Your task to perform on an android device: Is it going to rain tomorrow? Image 0: 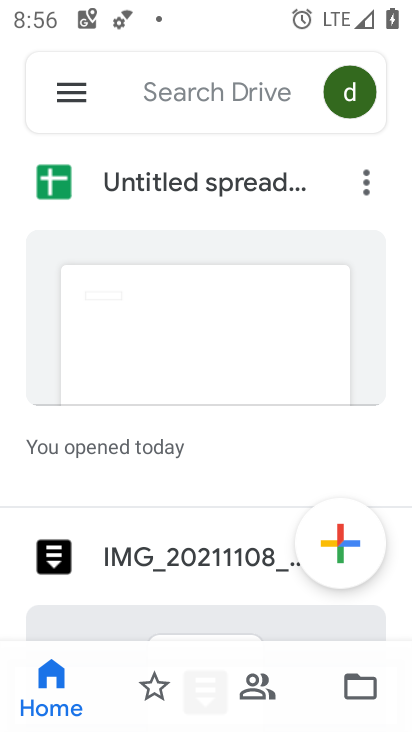
Step 0: press home button
Your task to perform on an android device: Is it going to rain tomorrow? Image 1: 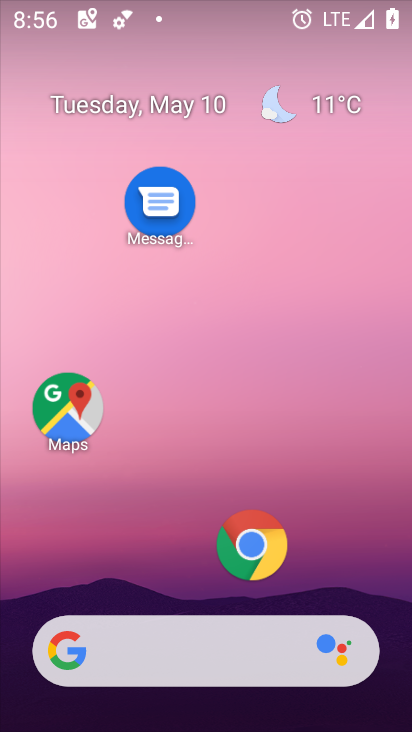
Step 1: click (339, 110)
Your task to perform on an android device: Is it going to rain tomorrow? Image 2: 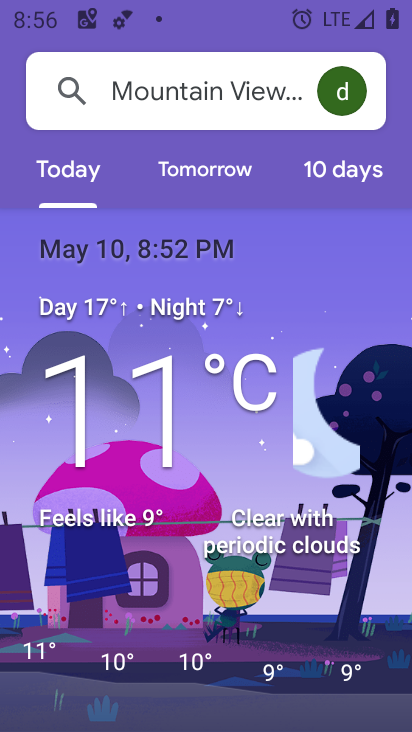
Step 2: click (207, 178)
Your task to perform on an android device: Is it going to rain tomorrow? Image 3: 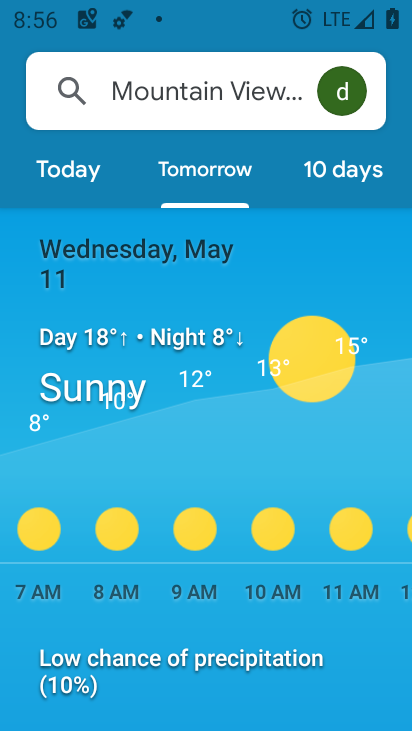
Step 3: task complete